Your task to perform on an android device: stop showing notifications on the lock screen Image 0: 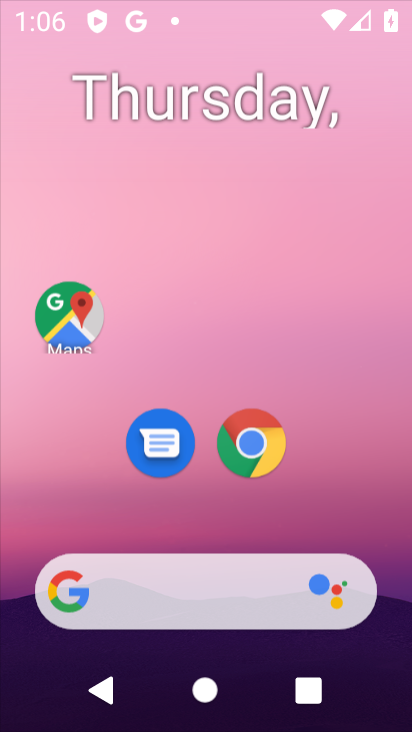
Step 0: drag from (265, 190) to (259, 7)
Your task to perform on an android device: stop showing notifications on the lock screen Image 1: 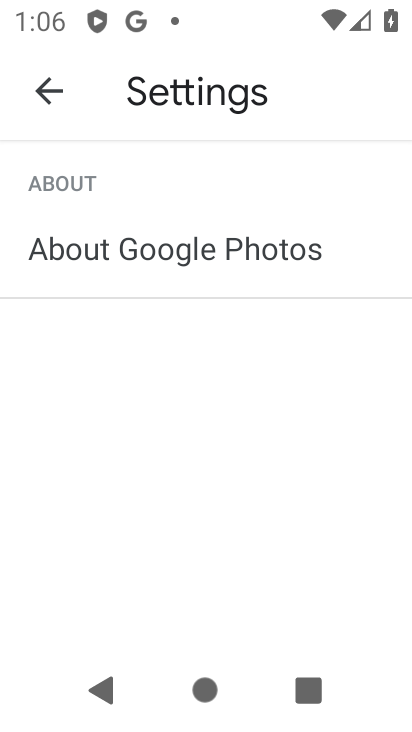
Step 1: press home button
Your task to perform on an android device: stop showing notifications on the lock screen Image 2: 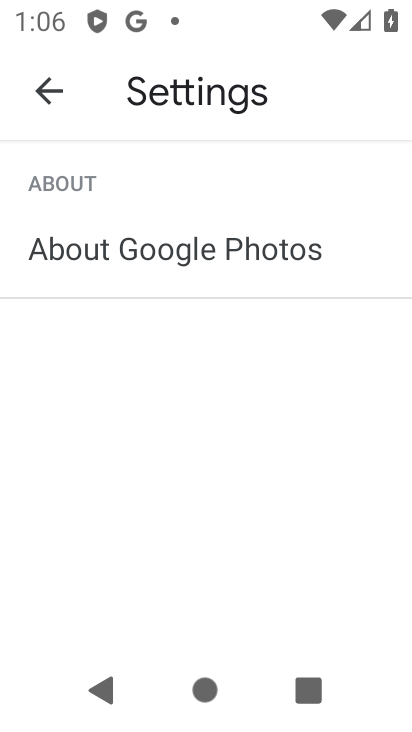
Step 2: press home button
Your task to perform on an android device: stop showing notifications on the lock screen Image 3: 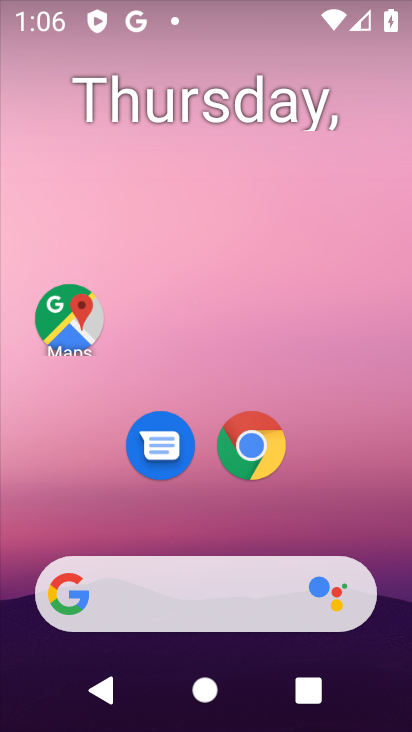
Step 3: drag from (214, 501) to (218, 164)
Your task to perform on an android device: stop showing notifications on the lock screen Image 4: 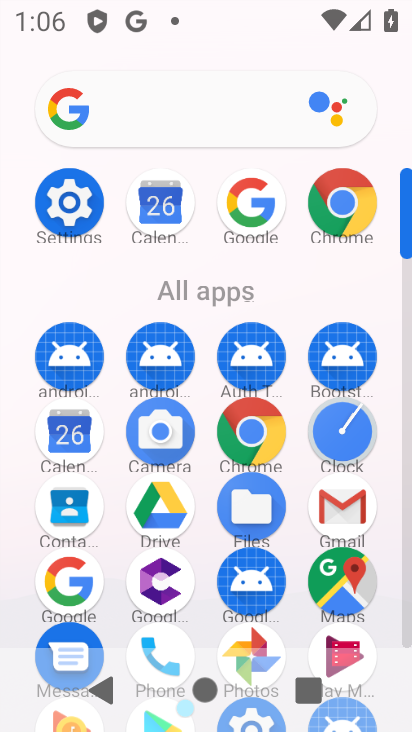
Step 4: click (65, 210)
Your task to perform on an android device: stop showing notifications on the lock screen Image 5: 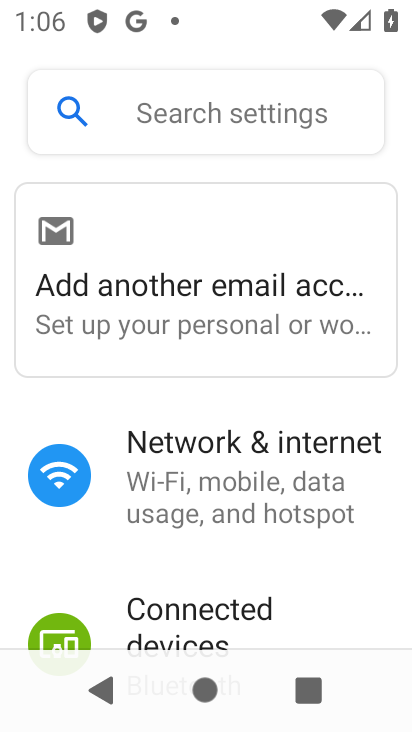
Step 5: drag from (235, 511) to (282, 67)
Your task to perform on an android device: stop showing notifications on the lock screen Image 6: 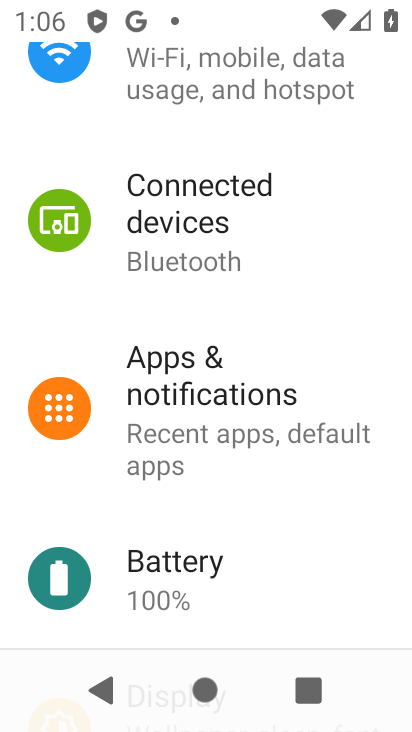
Step 6: drag from (220, 596) to (255, 250)
Your task to perform on an android device: stop showing notifications on the lock screen Image 7: 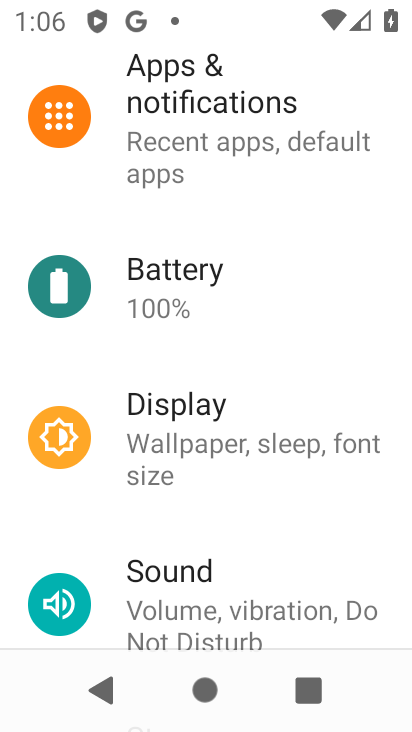
Step 7: click (204, 116)
Your task to perform on an android device: stop showing notifications on the lock screen Image 8: 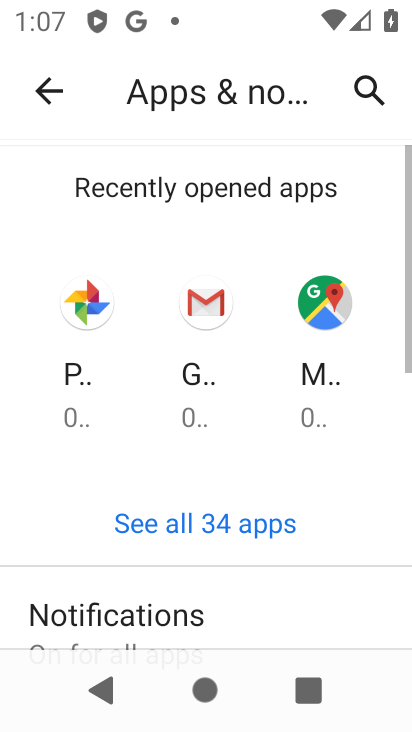
Step 8: click (172, 599)
Your task to perform on an android device: stop showing notifications on the lock screen Image 9: 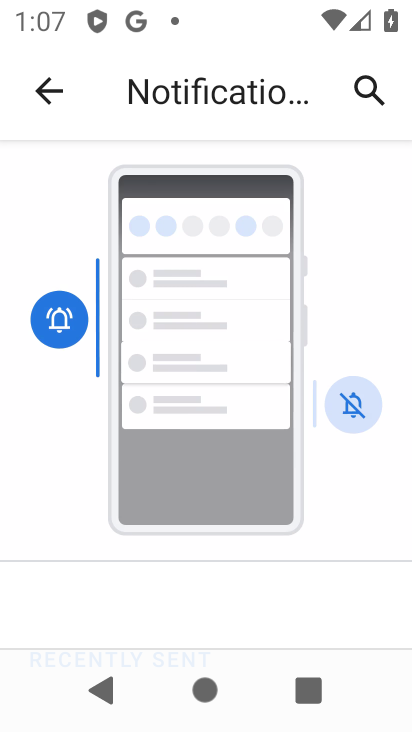
Step 9: drag from (258, 525) to (236, 80)
Your task to perform on an android device: stop showing notifications on the lock screen Image 10: 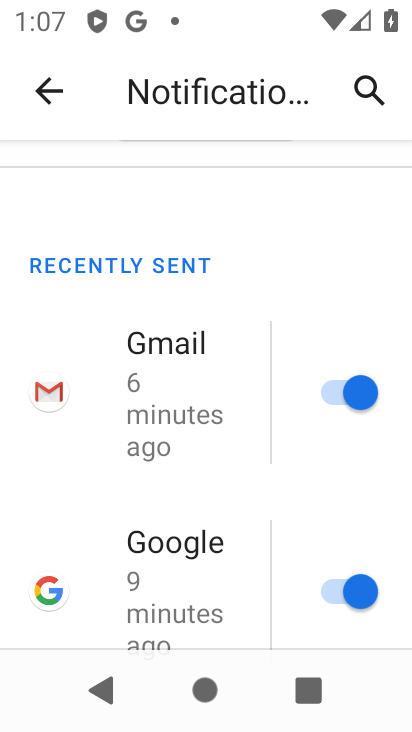
Step 10: drag from (200, 537) to (220, 164)
Your task to perform on an android device: stop showing notifications on the lock screen Image 11: 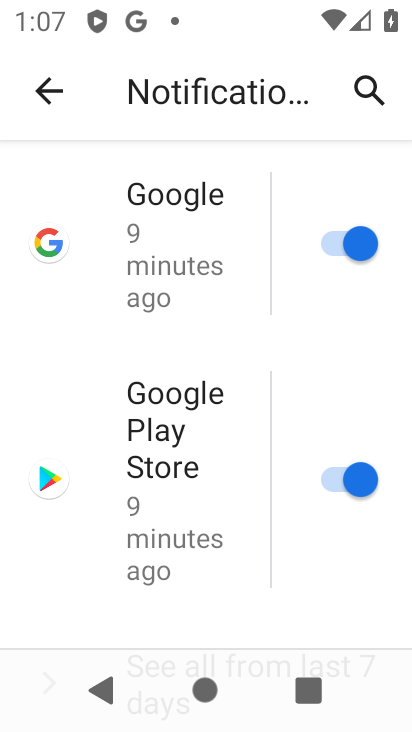
Step 11: drag from (231, 550) to (248, 208)
Your task to perform on an android device: stop showing notifications on the lock screen Image 12: 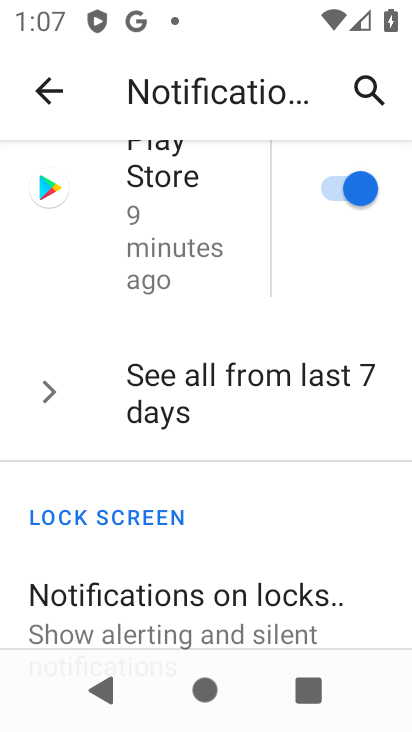
Step 12: click (194, 601)
Your task to perform on an android device: stop showing notifications on the lock screen Image 13: 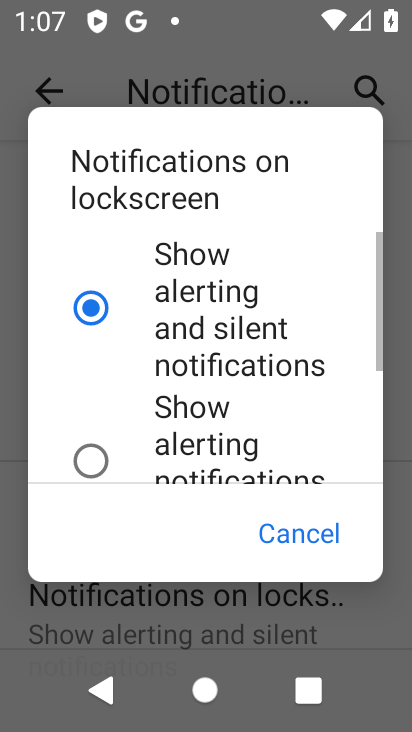
Step 13: drag from (194, 404) to (237, 6)
Your task to perform on an android device: stop showing notifications on the lock screen Image 14: 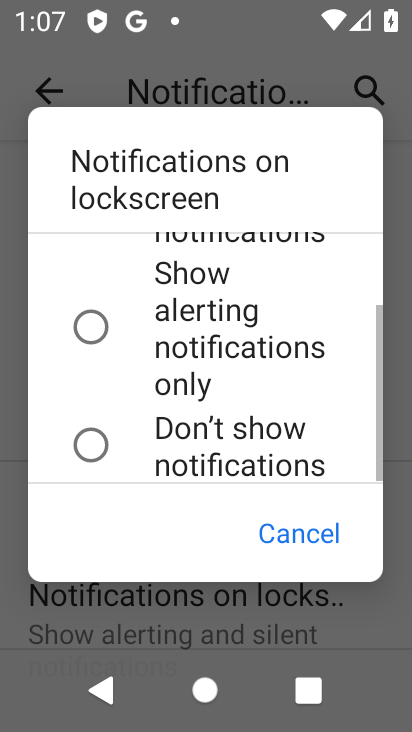
Step 14: drag from (243, 421) to (243, 45)
Your task to perform on an android device: stop showing notifications on the lock screen Image 15: 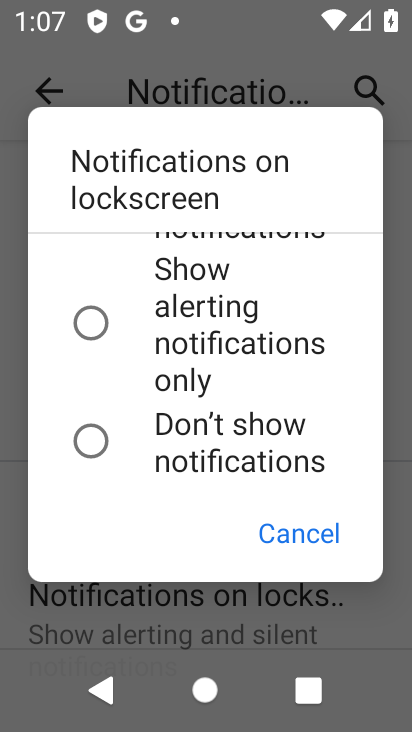
Step 15: click (218, 388)
Your task to perform on an android device: stop showing notifications on the lock screen Image 16: 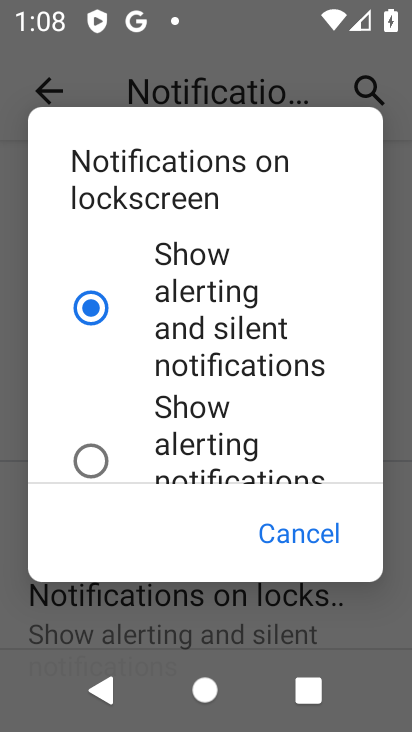
Step 16: drag from (167, 419) to (213, 58)
Your task to perform on an android device: stop showing notifications on the lock screen Image 17: 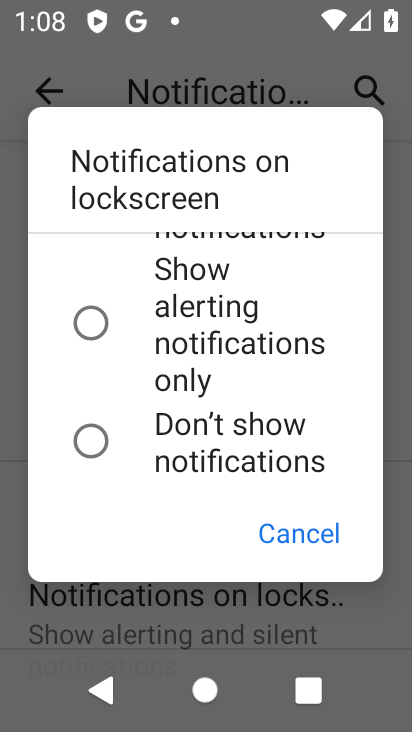
Step 17: click (127, 437)
Your task to perform on an android device: stop showing notifications on the lock screen Image 18: 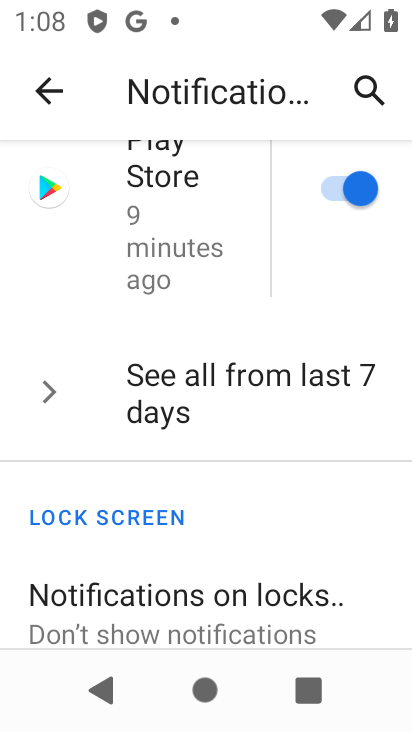
Step 18: task complete